Your task to perform on an android device: Go to display settings Image 0: 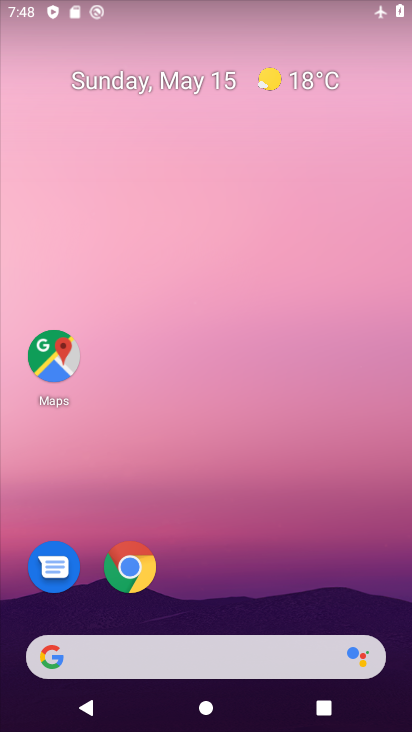
Step 0: drag from (239, 696) to (267, 2)
Your task to perform on an android device: Go to display settings Image 1: 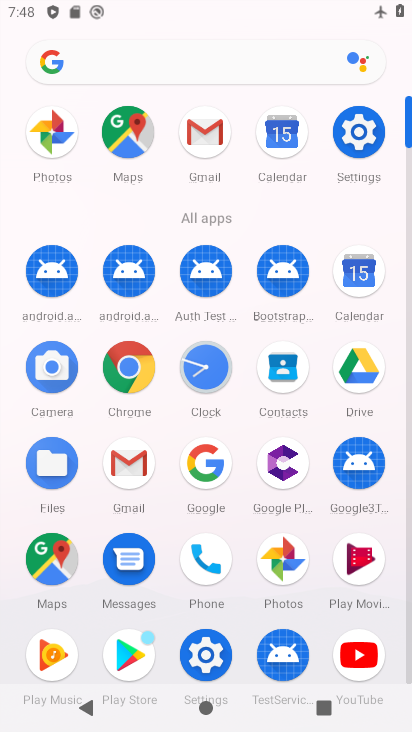
Step 1: click (348, 142)
Your task to perform on an android device: Go to display settings Image 2: 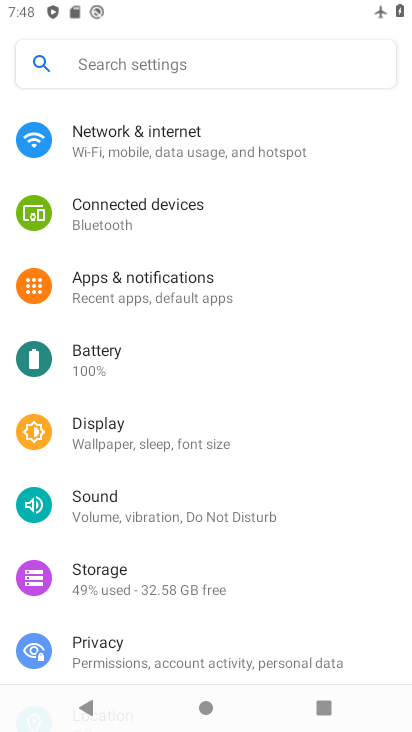
Step 2: click (198, 445)
Your task to perform on an android device: Go to display settings Image 3: 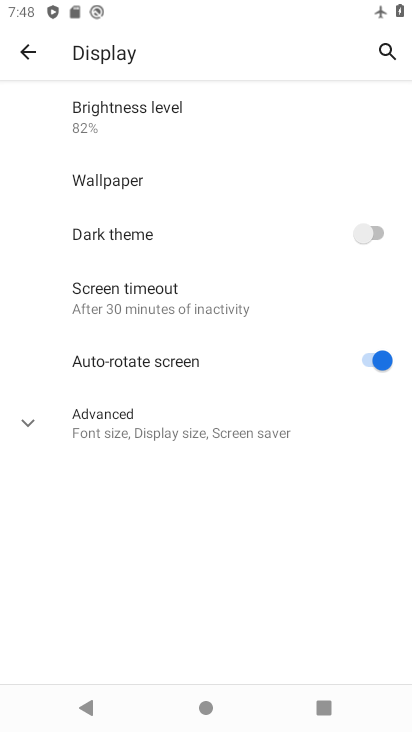
Step 3: task complete